Your task to perform on an android device: open chrome privacy settings Image 0: 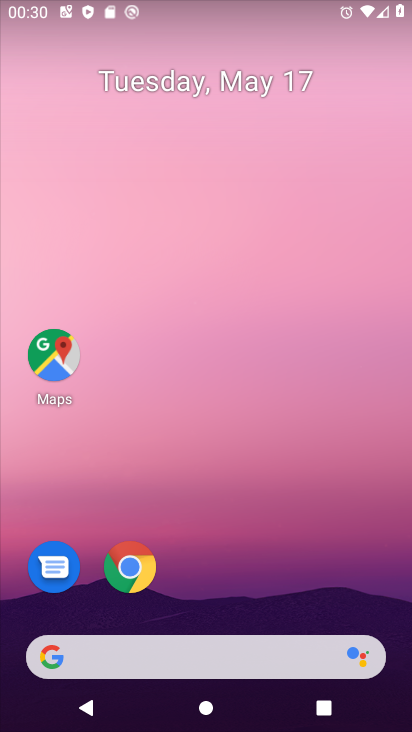
Step 0: drag from (277, 574) to (119, 154)
Your task to perform on an android device: open chrome privacy settings Image 1: 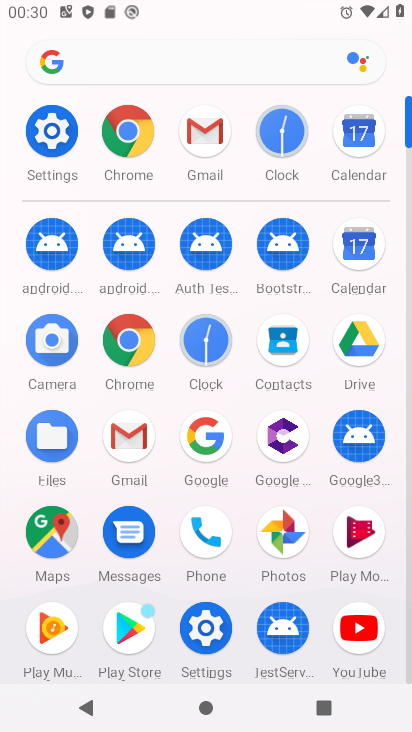
Step 1: click (117, 118)
Your task to perform on an android device: open chrome privacy settings Image 2: 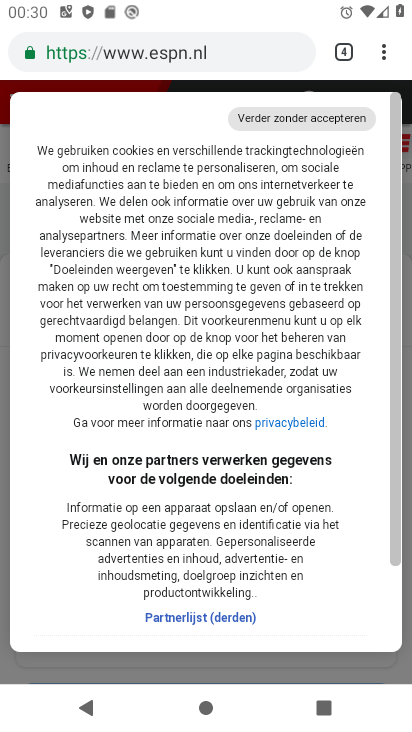
Step 2: click (383, 51)
Your task to perform on an android device: open chrome privacy settings Image 3: 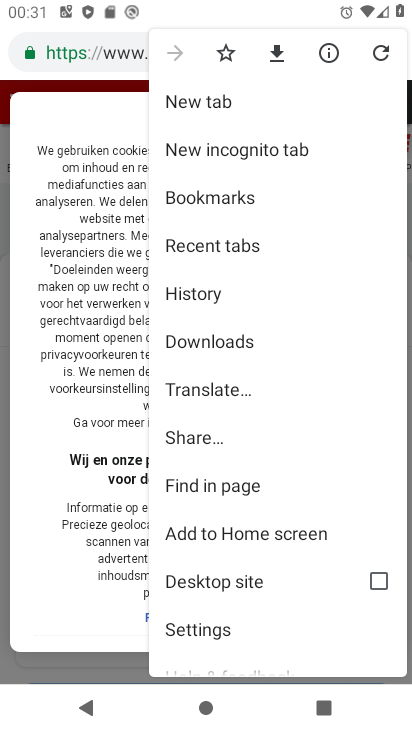
Step 3: drag from (300, 569) to (281, 164)
Your task to perform on an android device: open chrome privacy settings Image 4: 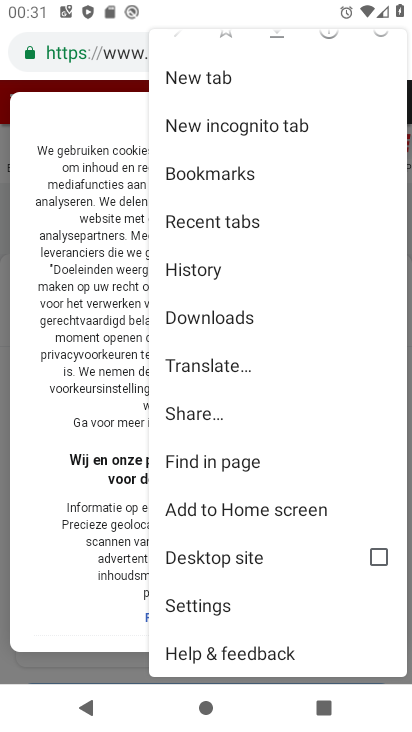
Step 4: click (202, 604)
Your task to perform on an android device: open chrome privacy settings Image 5: 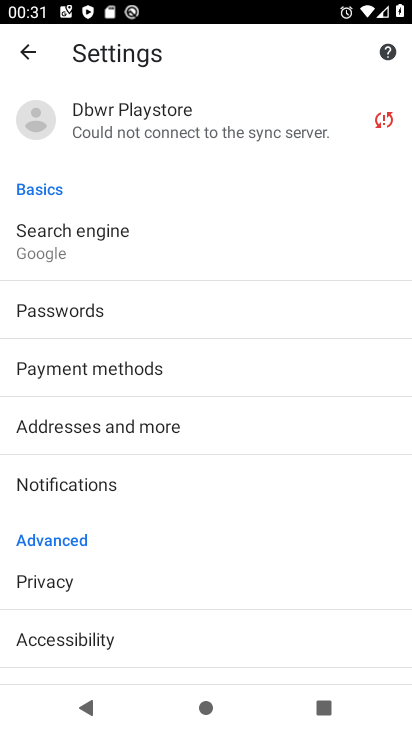
Step 5: click (49, 578)
Your task to perform on an android device: open chrome privacy settings Image 6: 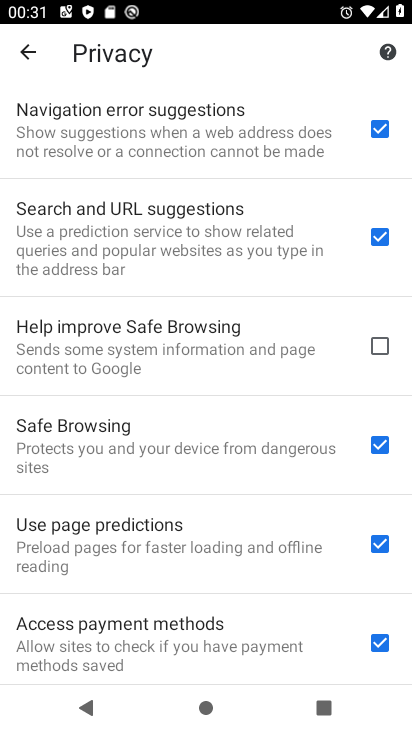
Step 6: task complete